Your task to perform on an android device: Do I have any events today? Image 0: 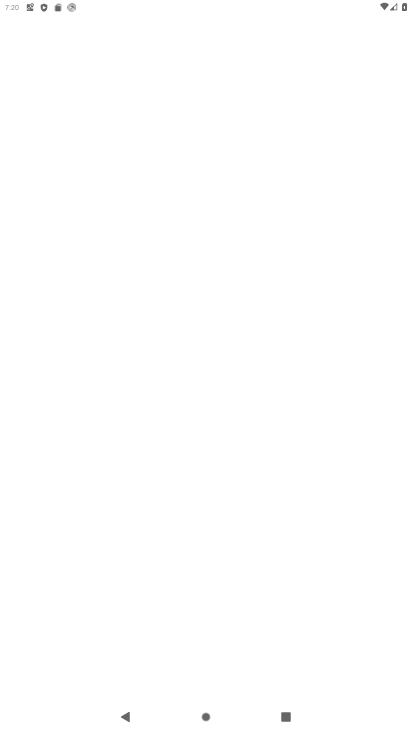
Step 0: press home button
Your task to perform on an android device: Do I have any events today? Image 1: 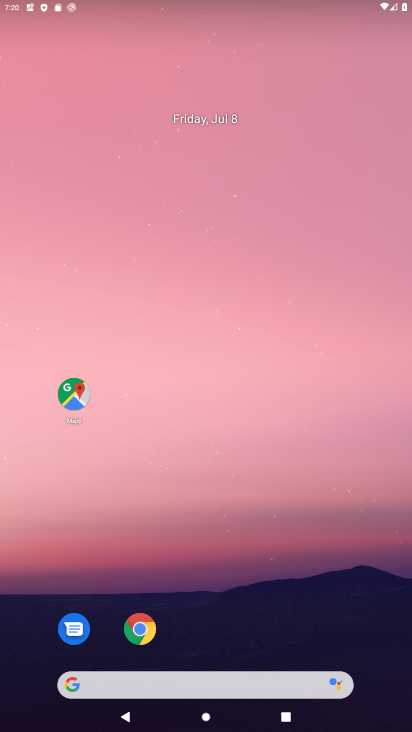
Step 1: drag from (311, 614) to (325, 14)
Your task to perform on an android device: Do I have any events today? Image 2: 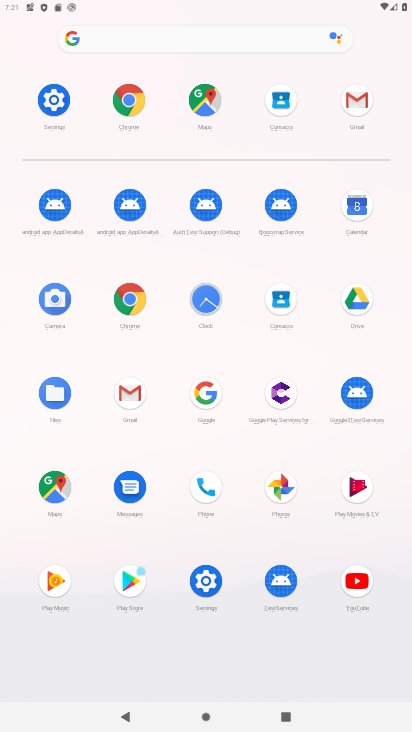
Step 2: click (359, 206)
Your task to perform on an android device: Do I have any events today? Image 3: 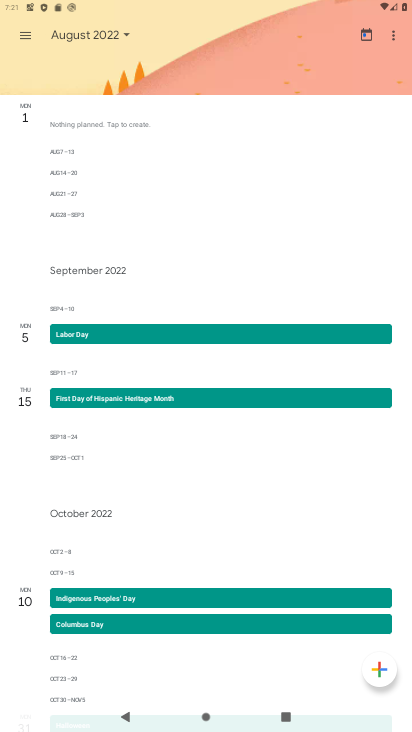
Step 3: task complete